Your task to perform on an android device: Open the stopwatch Image 0: 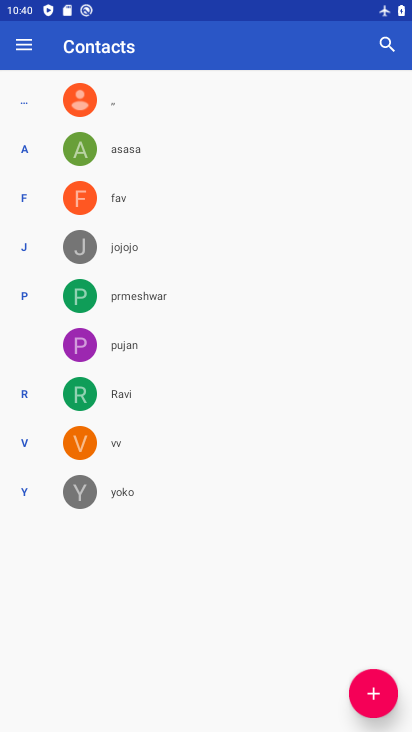
Step 0: press home button
Your task to perform on an android device: Open the stopwatch Image 1: 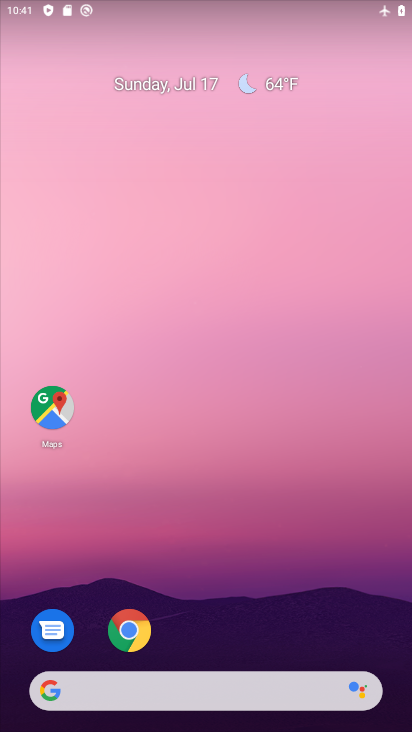
Step 1: drag from (291, 613) to (307, 131)
Your task to perform on an android device: Open the stopwatch Image 2: 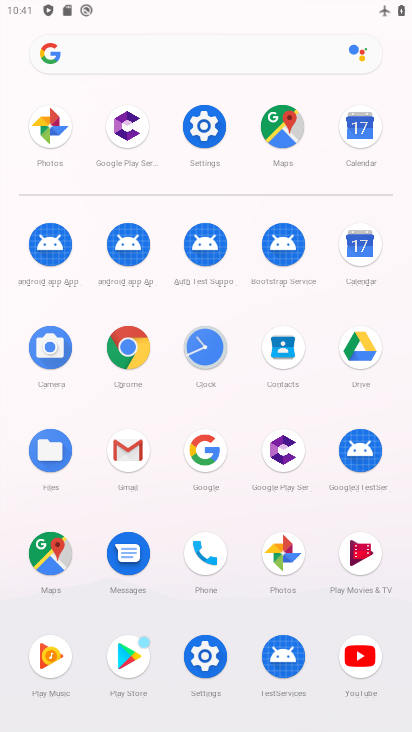
Step 2: click (203, 345)
Your task to perform on an android device: Open the stopwatch Image 3: 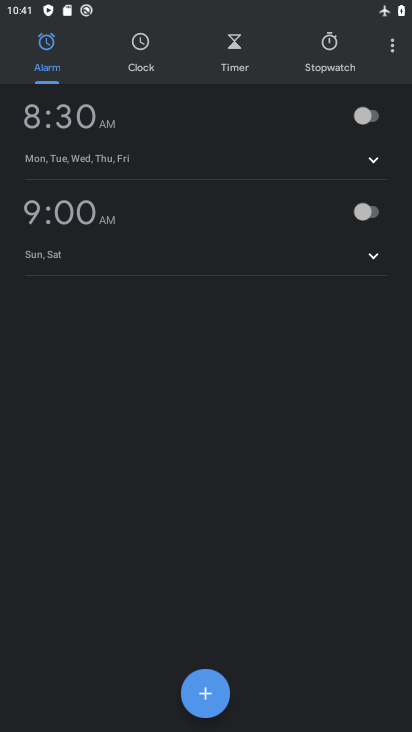
Step 3: click (329, 44)
Your task to perform on an android device: Open the stopwatch Image 4: 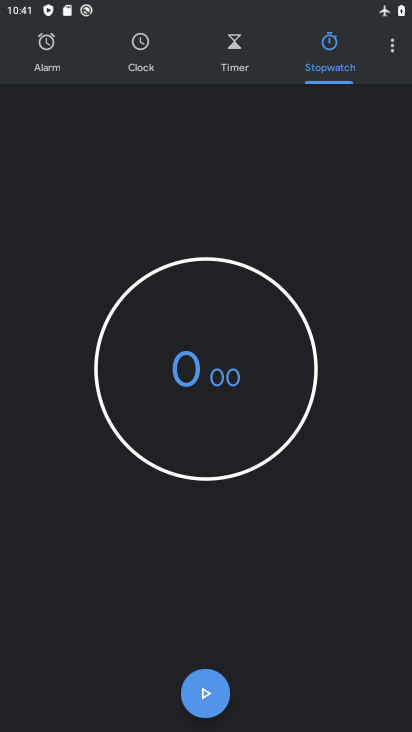
Step 4: task complete